Your task to perform on an android device: change keyboard looks Image 0: 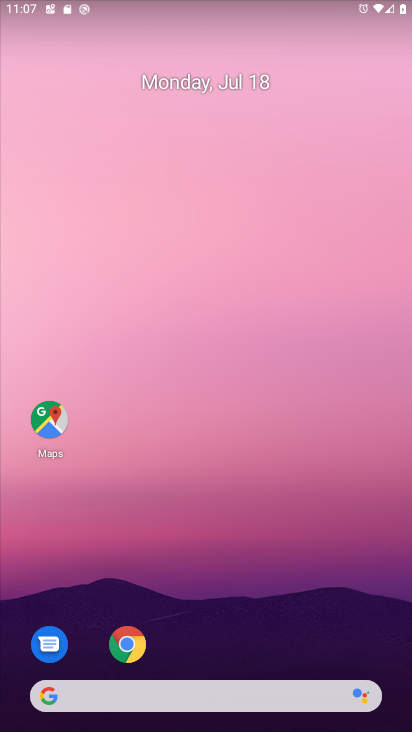
Step 0: drag from (237, 670) to (174, 38)
Your task to perform on an android device: change keyboard looks Image 1: 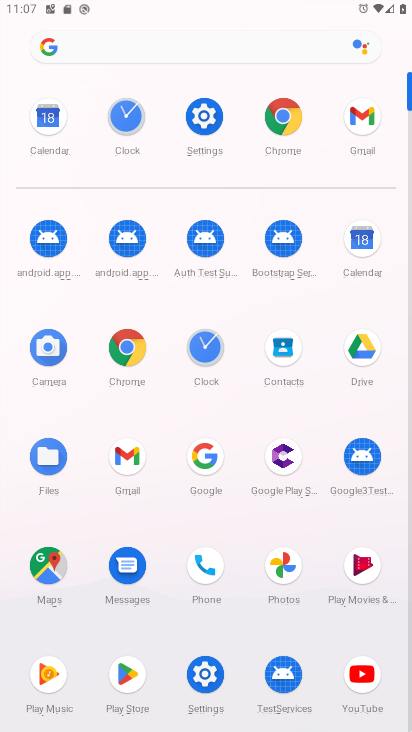
Step 1: click (201, 123)
Your task to perform on an android device: change keyboard looks Image 2: 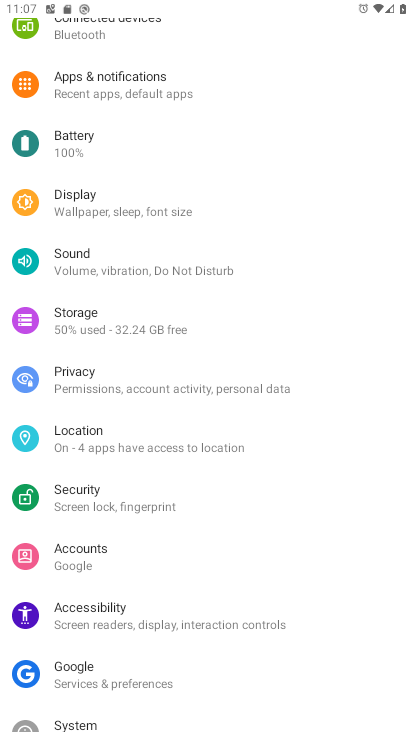
Step 2: task complete